Your task to perform on an android device: turn on location history Image 0: 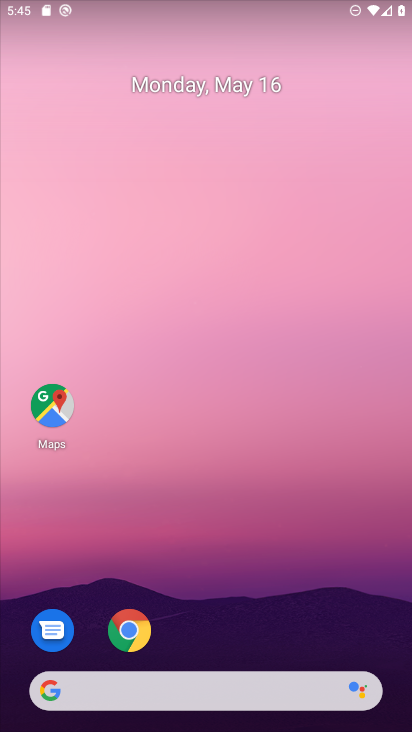
Step 0: drag from (313, 624) to (342, 280)
Your task to perform on an android device: turn on location history Image 1: 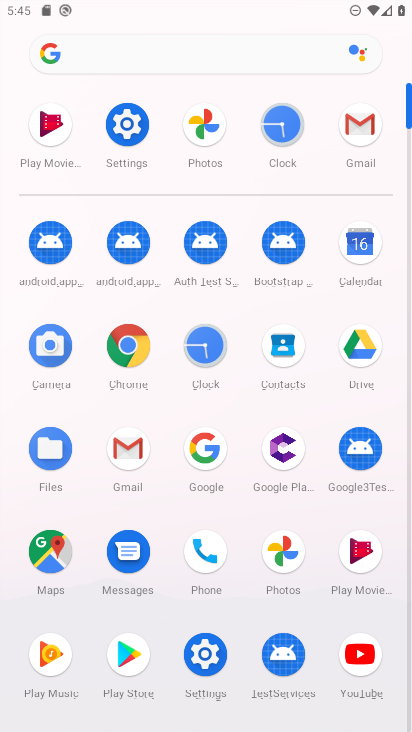
Step 1: click (61, 546)
Your task to perform on an android device: turn on location history Image 2: 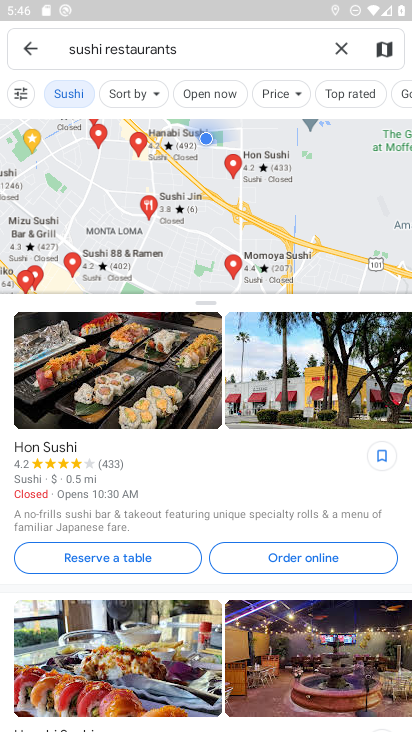
Step 2: click (30, 46)
Your task to perform on an android device: turn on location history Image 3: 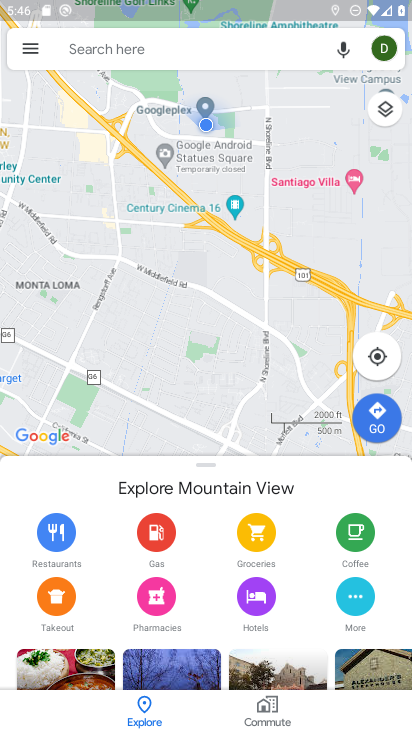
Step 3: click (30, 46)
Your task to perform on an android device: turn on location history Image 4: 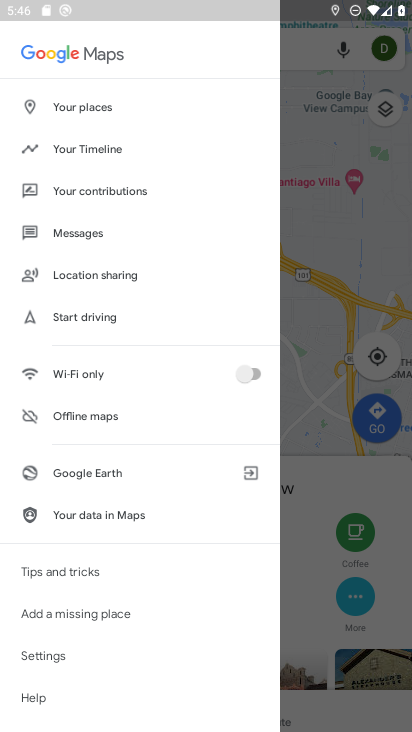
Step 4: click (73, 154)
Your task to perform on an android device: turn on location history Image 5: 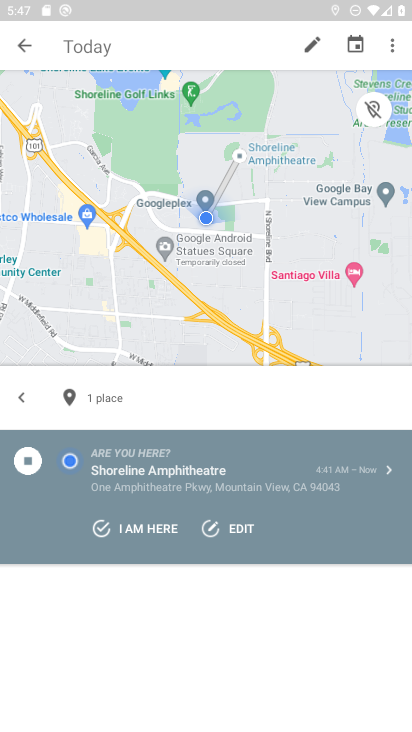
Step 5: click (393, 40)
Your task to perform on an android device: turn on location history Image 6: 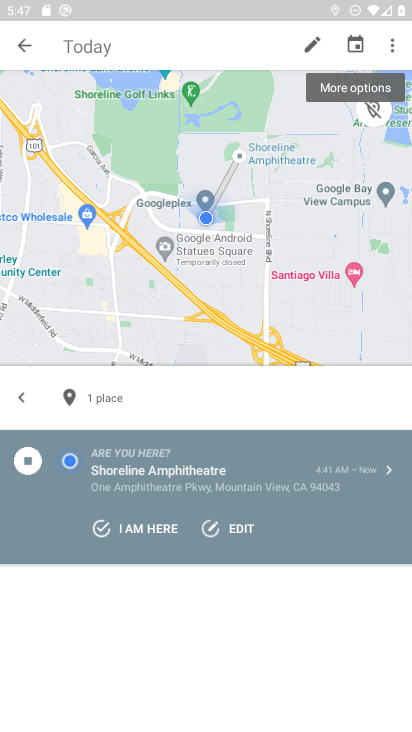
Step 6: click (393, 40)
Your task to perform on an android device: turn on location history Image 7: 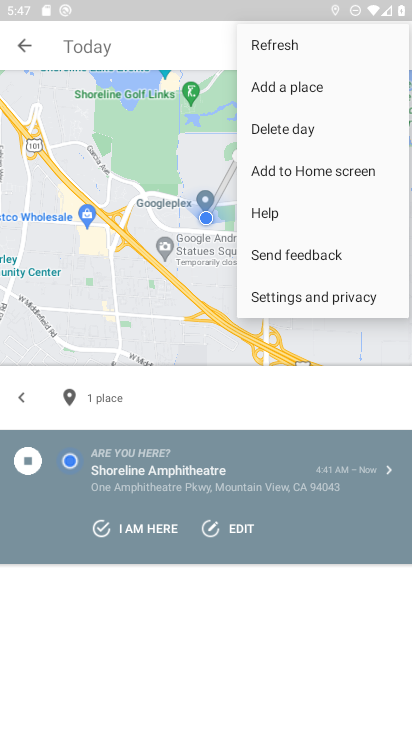
Step 7: click (319, 293)
Your task to perform on an android device: turn on location history Image 8: 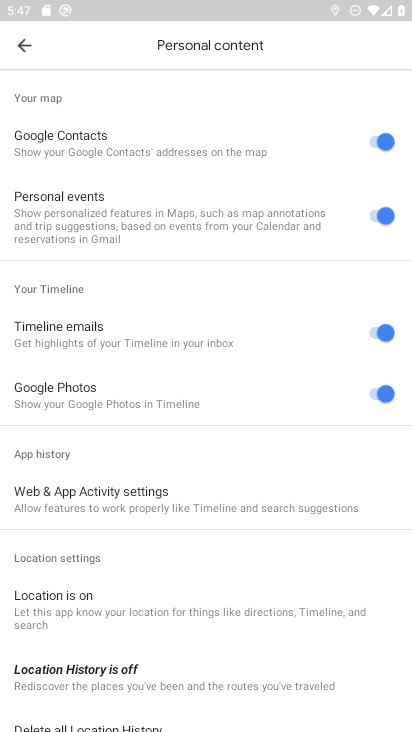
Step 8: drag from (128, 606) to (189, 283)
Your task to perform on an android device: turn on location history Image 9: 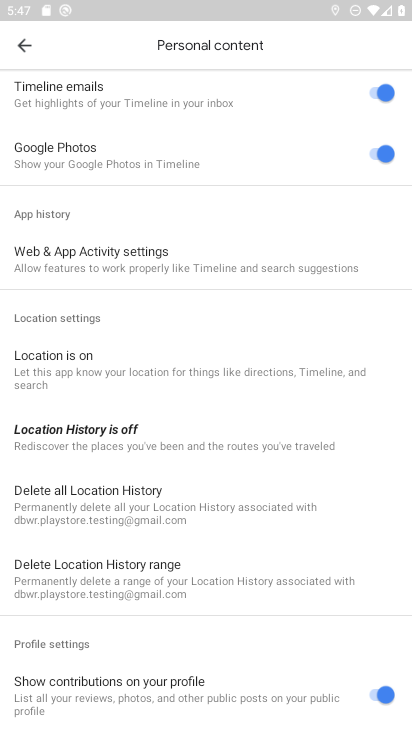
Step 9: click (81, 427)
Your task to perform on an android device: turn on location history Image 10: 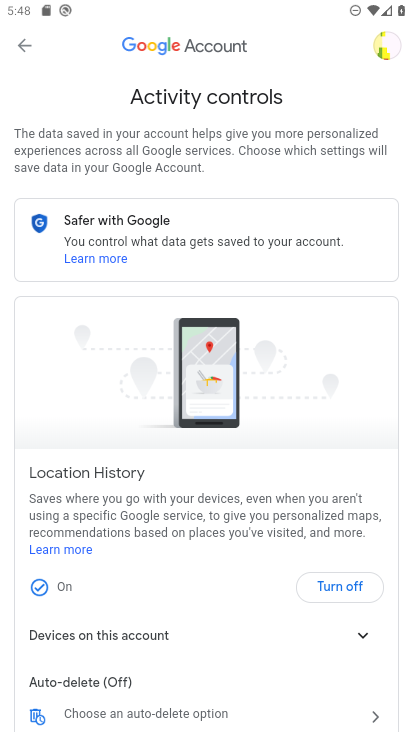
Step 10: task complete